Your task to perform on an android device: toggle airplane mode Image 0: 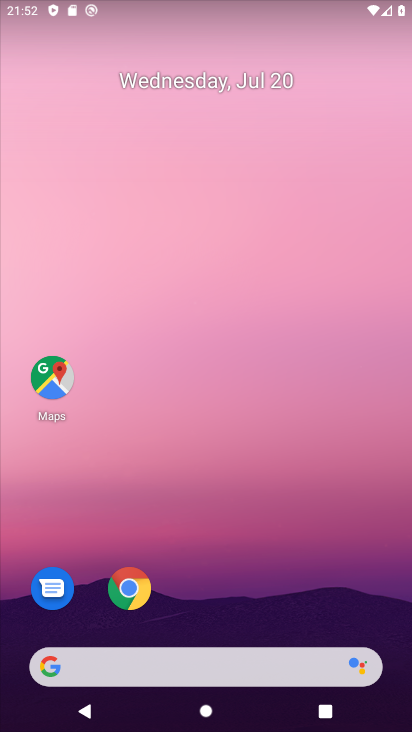
Step 0: drag from (400, 636) to (349, 136)
Your task to perform on an android device: toggle airplane mode Image 1: 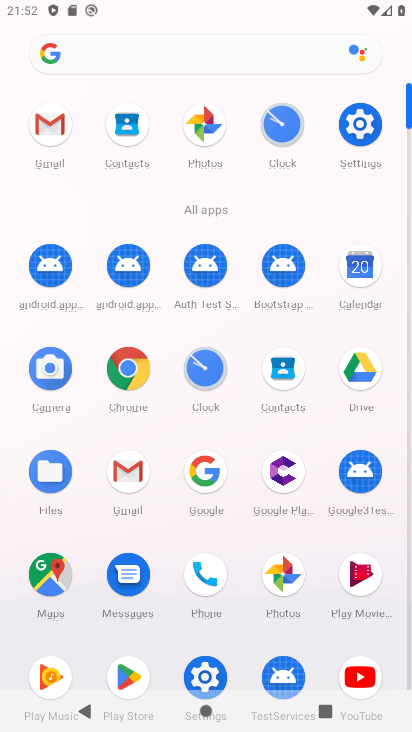
Step 1: click (206, 672)
Your task to perform on an android device: toggle airplane mode Image 2: 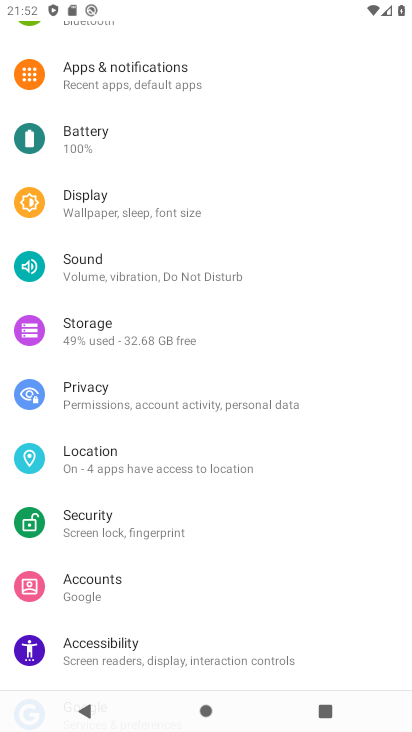
Step 2: drag from (320, 101) to (323, 376)
Your task to perform on an android device: toggle airplane mode Image 3: 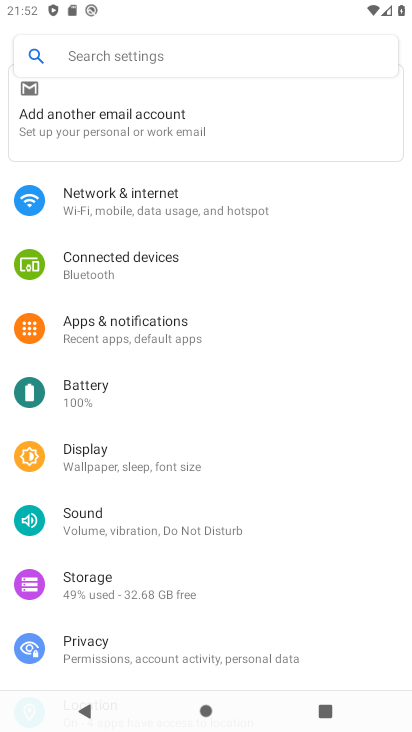
Step 3: click (84, 200)
Your task to perform on an android device: toggle airplane mode Image 4: 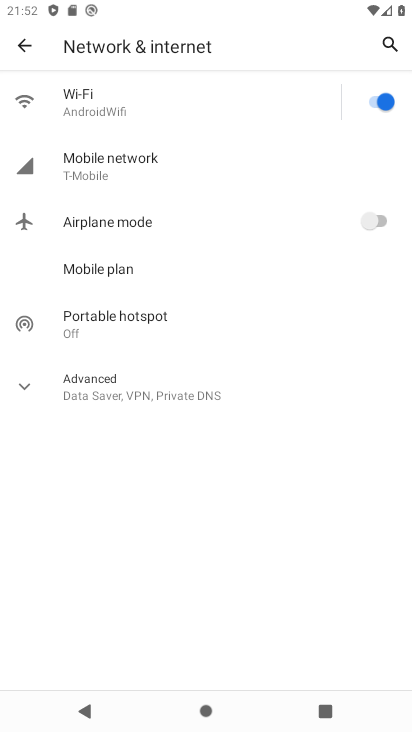
Step 4: click (382, 223)
Your task to perform on an android device: toggle airplane mode Image 5: 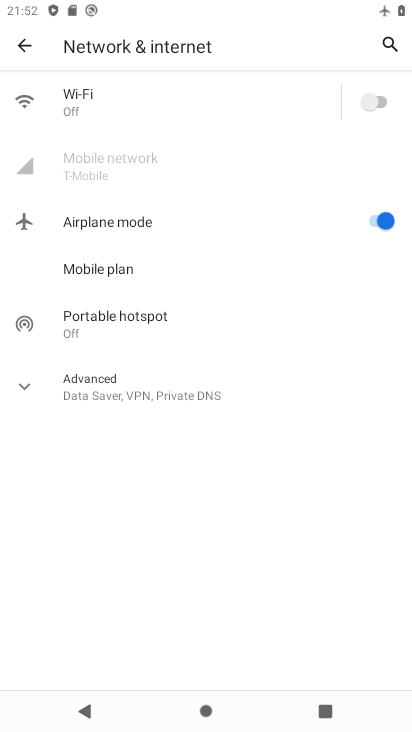
Step 5: task complete